Your task to perform on an android device: check battery use Image 0: 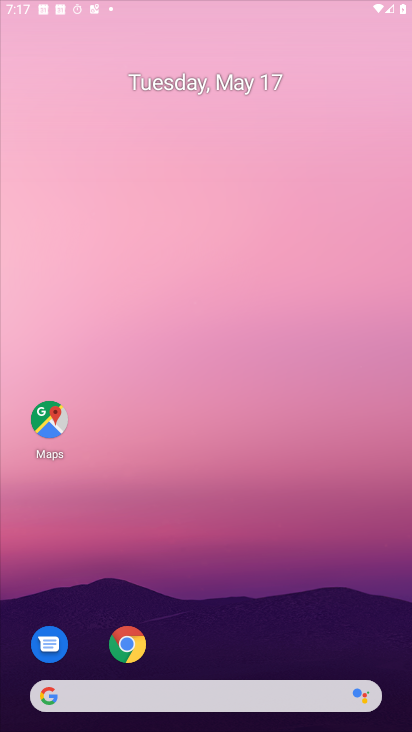
Step 0: drag from (323, 633) to (176, 30)
Your task to perform on an android device: check battery use Image 1: 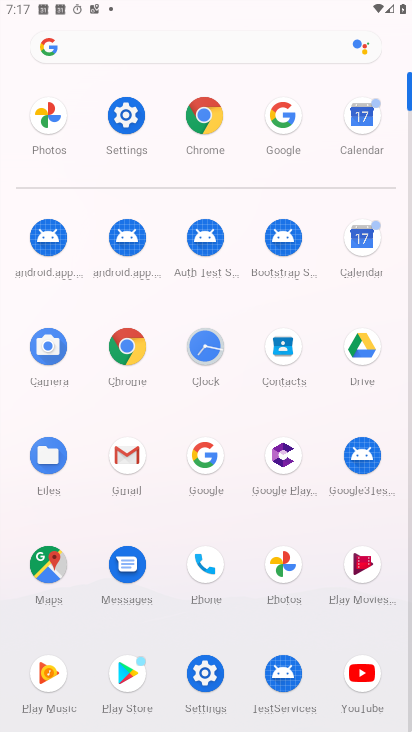
Step 1: click (134, 133)
Your task to perform on an android device: check battery use Image 2: 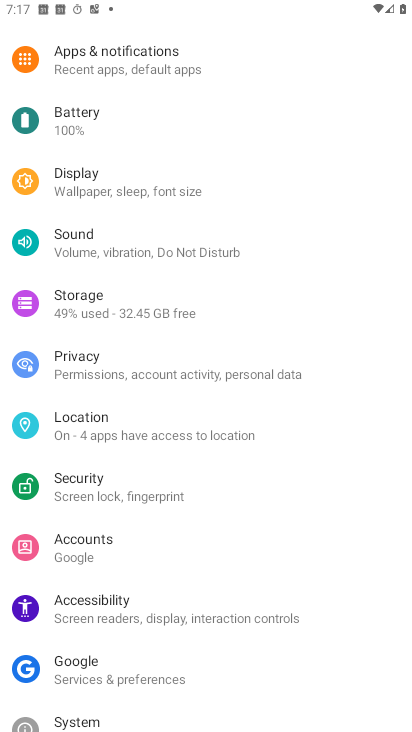
Step 2: click (143, 124)
Your task to perform on an android device: check battery use Image 3: 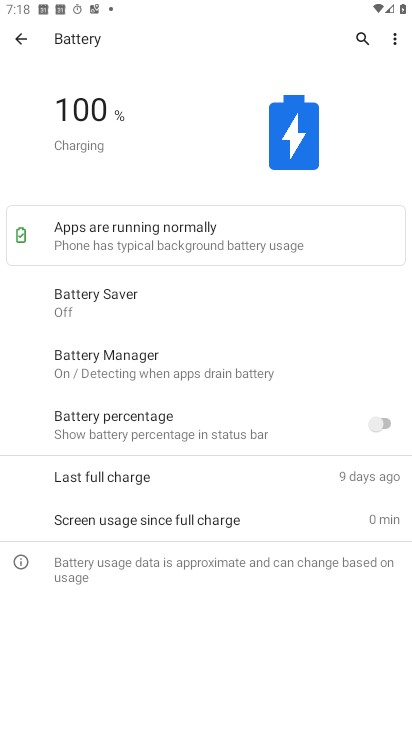
Step 3: click (216, 161)
Your task to perform on an android device: check battery use Image 4: 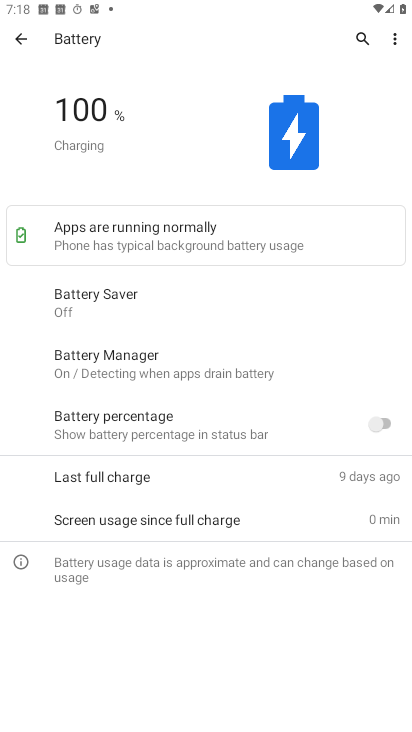
Step 4: click (286, 151)
Your task to perform on an android device: check battery use Image 5: 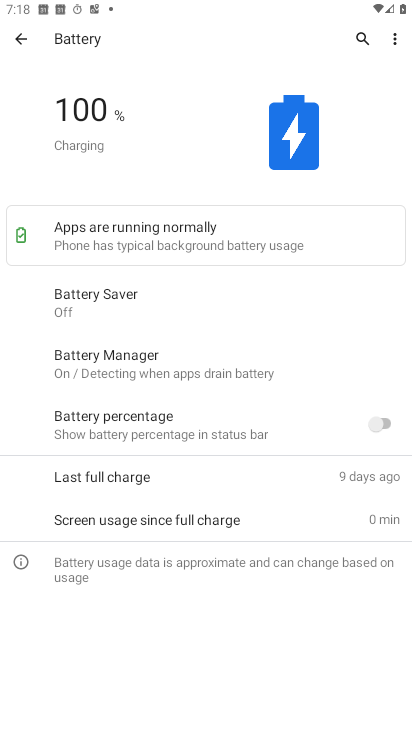
Step 5: task complete